Your task to perform on an android device: Toggle the flashlight Image 0: 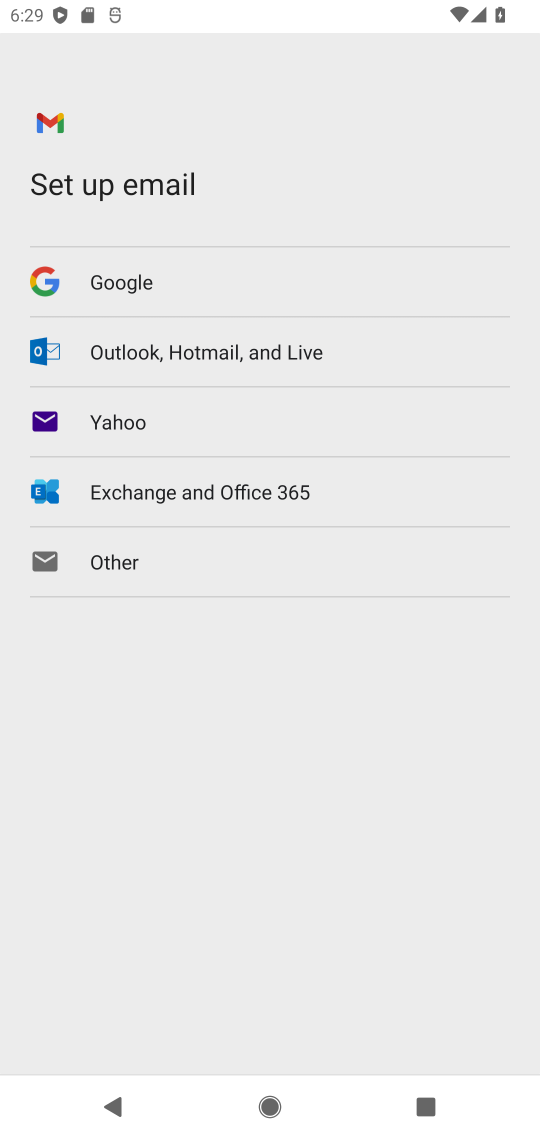
Step 0: press home button
Your task to perform on an android device: Toggle the flashlight Image 1: 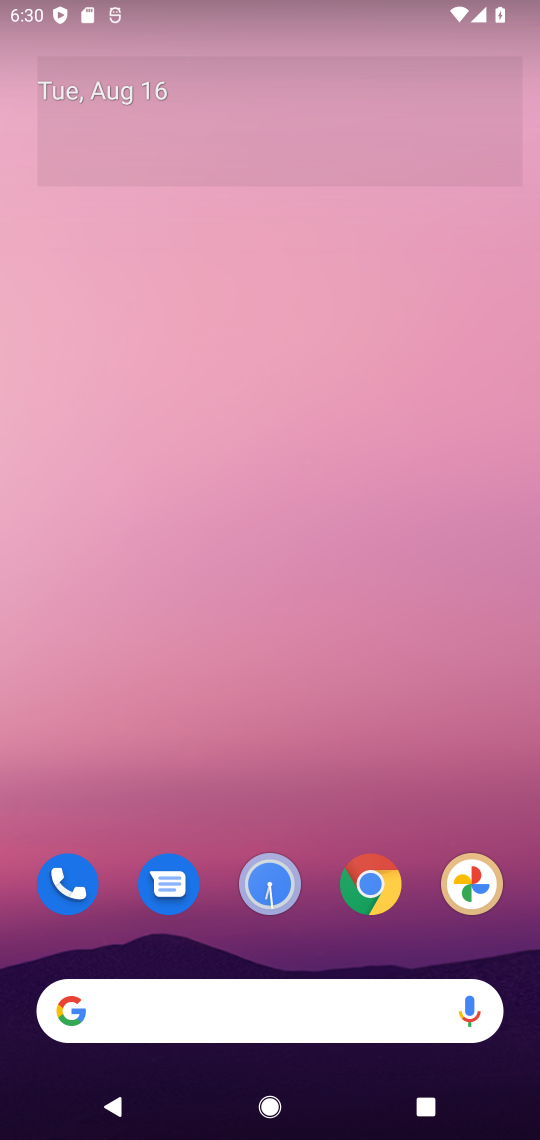
Step 1: drag from (254, 861) to (376, 862)
Your task to perform on an android device: Toggle the flashlight Image 2: 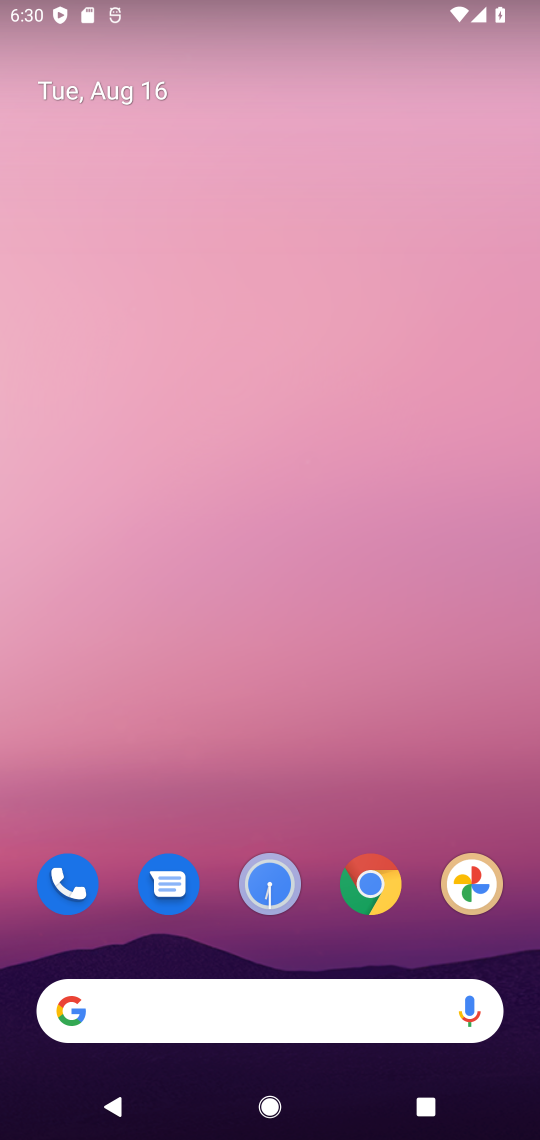
Step 2: drag from (264, 59) to (264, 1116)
Your task to perform on an android device: Toggle the flashlight Image 3: 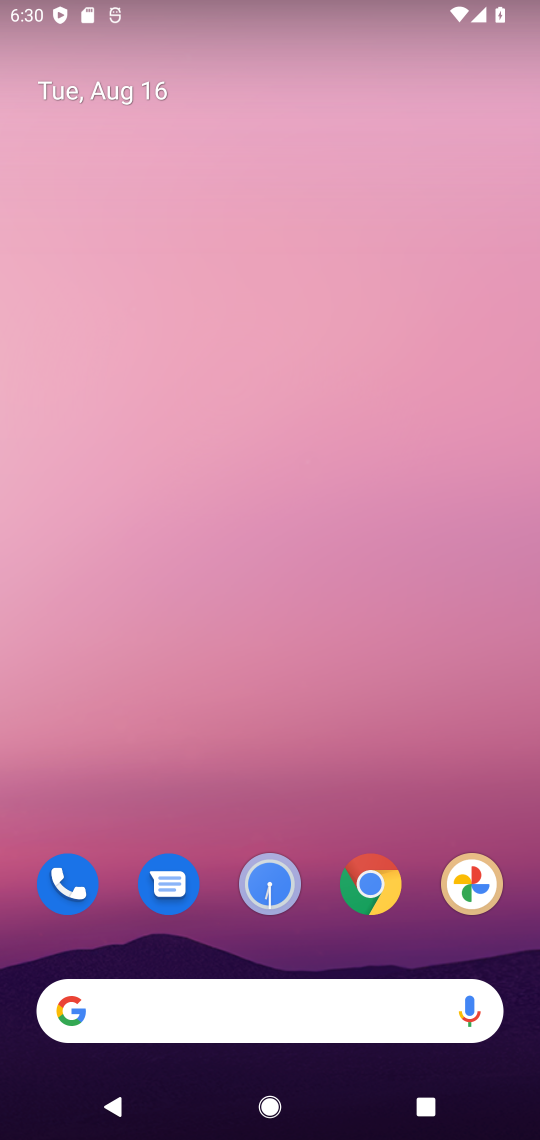
Step 3: click (246, 539)
Your task to perform on an android device: Toggle the flashlight Image 4: 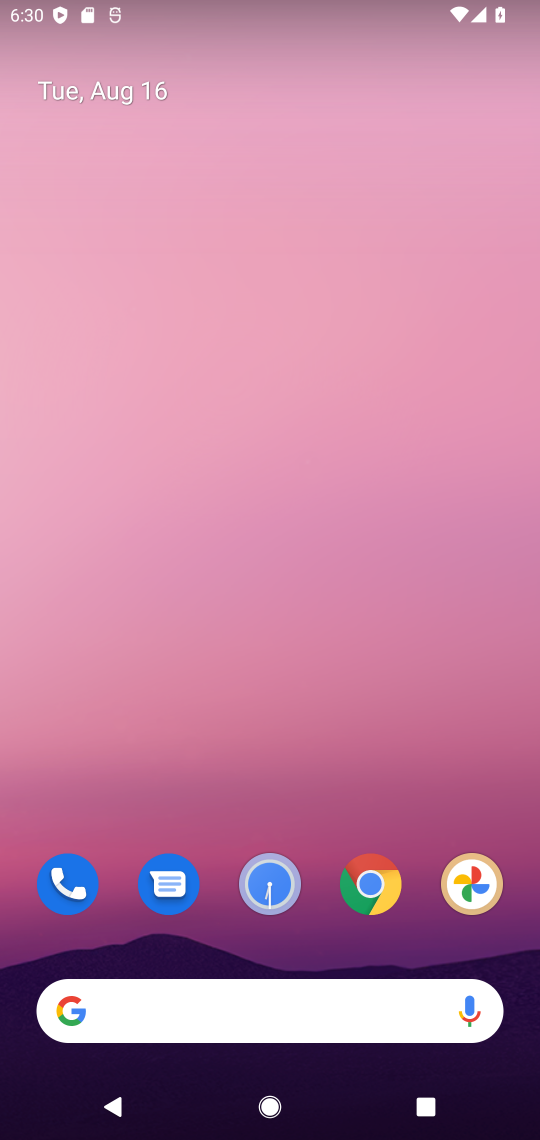
Step 4: drag from (313, 0) to (337, 758)
Your task to perform on an android device: Toggle the flashlight Image 5: 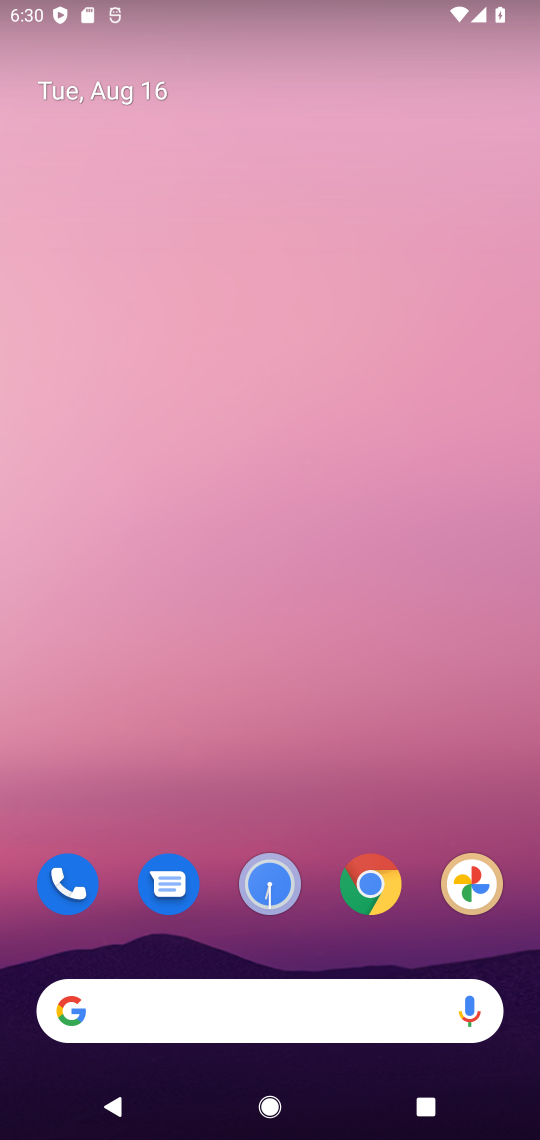
Step 5: click (271, 531)
Your task to perform on an android device: Toggle the flashlight Image 6: 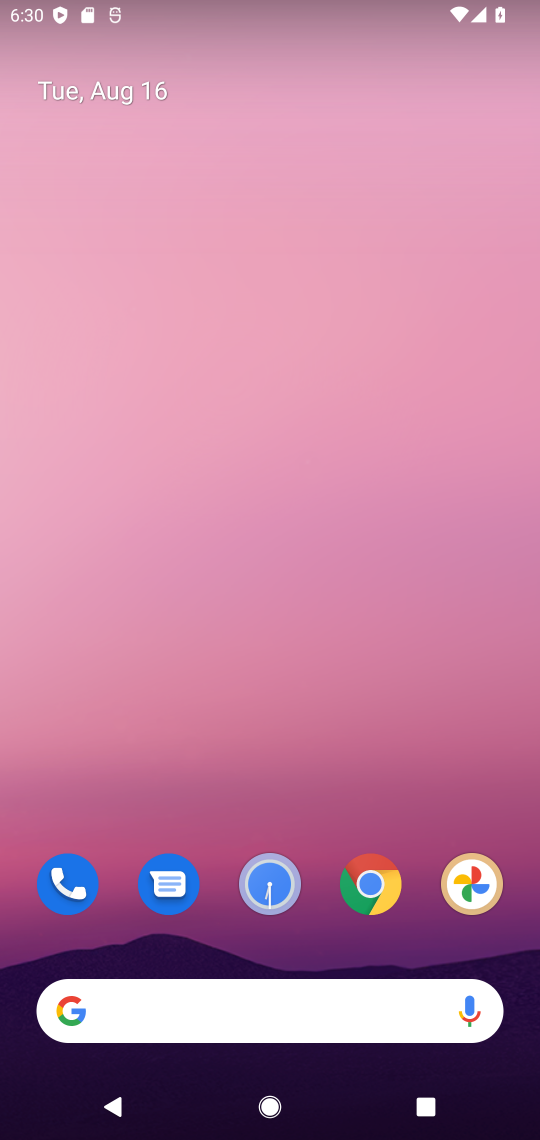
Step 6: click (206, 447)
Your task to perform on an android device: Toggle the flashlight Image 7: 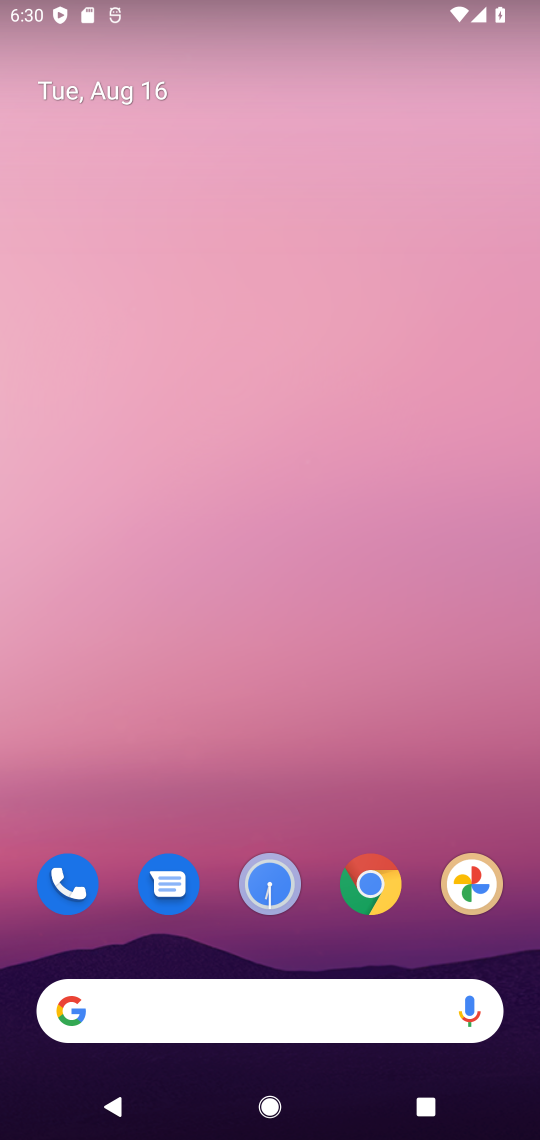
Step 7: drag from (290, 378) to (268, 914)
Your task to perform on an android device: Toggle the flashlight Image 8: 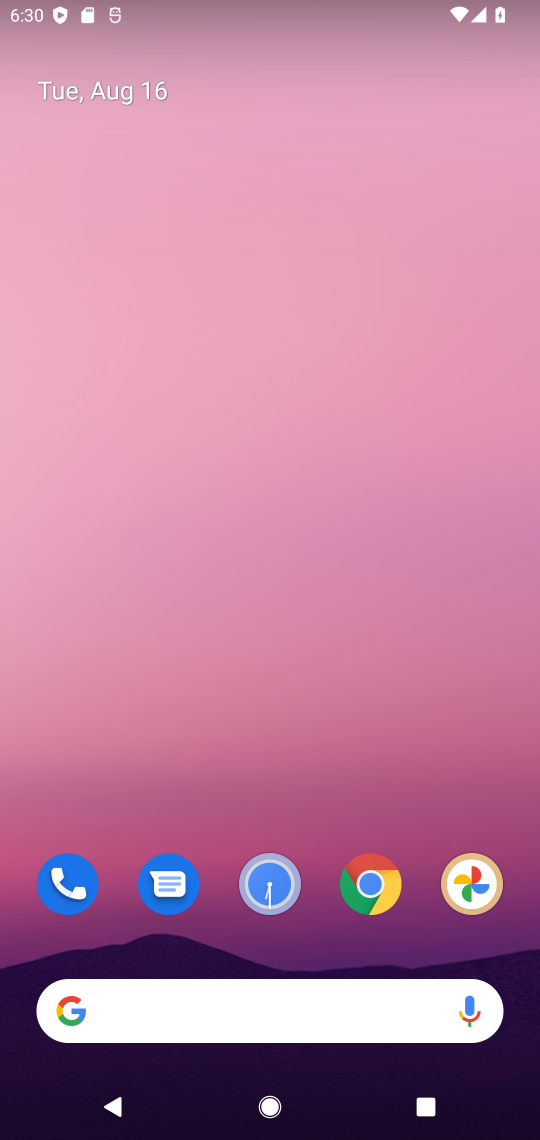
Step 8: drag from (265, 7) to (275, 866)
Your task to perform on an android device: Toggle the flashlight Image 9: 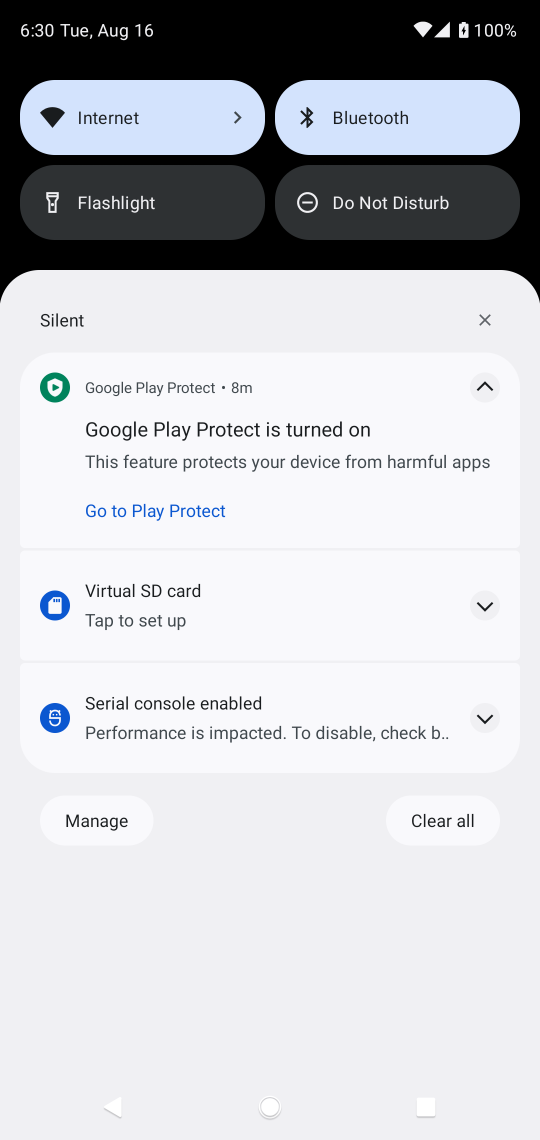
Step 9: click (122, 208)
Your task to perform on an android device: Toggle the flashlight Image 10: 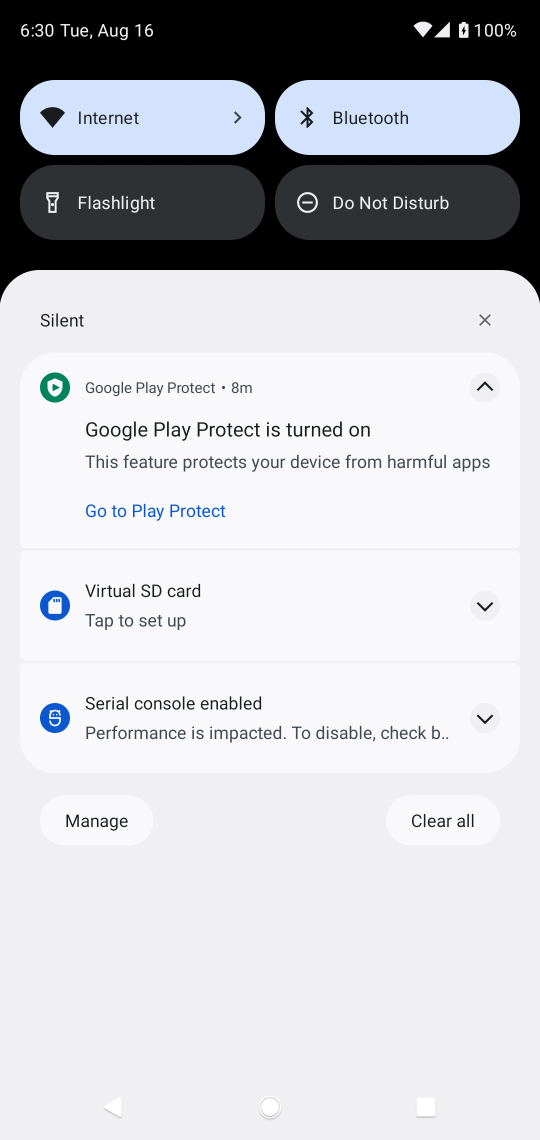
Step 10: task complete